Your task to perform on an android device: open a bookmark in the chrome app Image 0: 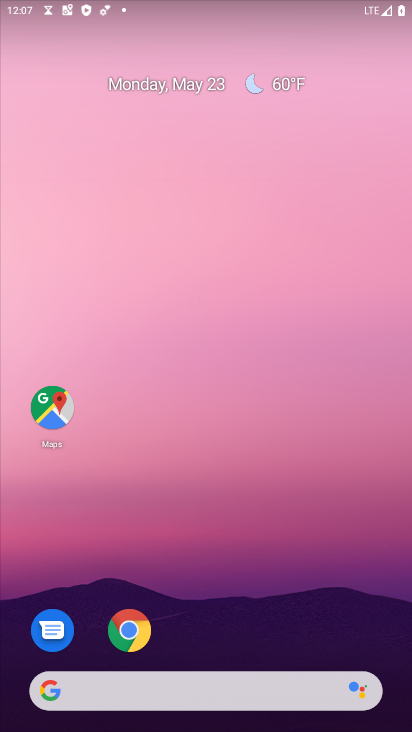
Step 0: click (127, 630)
Your task to perform on an android device: open a bookmark in the chrome app Image 1: 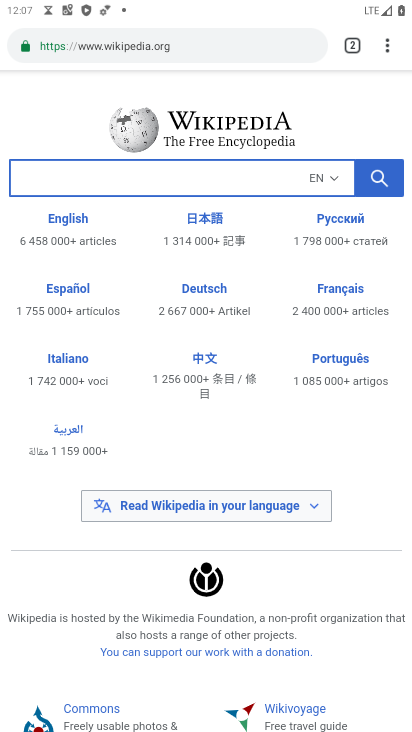
Step 1: click (388, 44)
Your task to perform on an android device: open a bookmark in the chrome app Image 2: 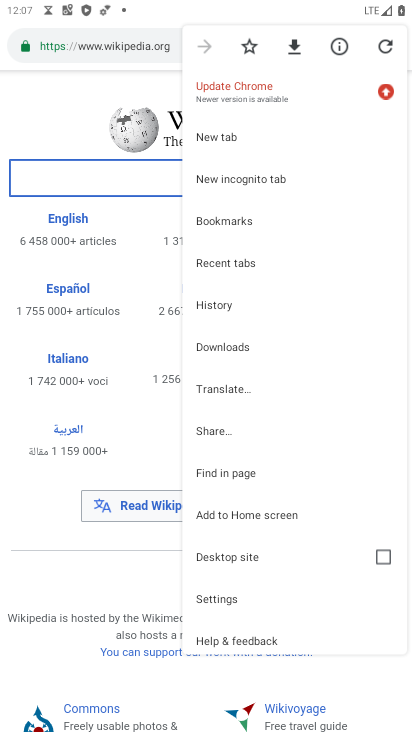
Step 2: click (247, 219)
Your task to perform on an android device: open a bookmark in the chrome app Image 3: 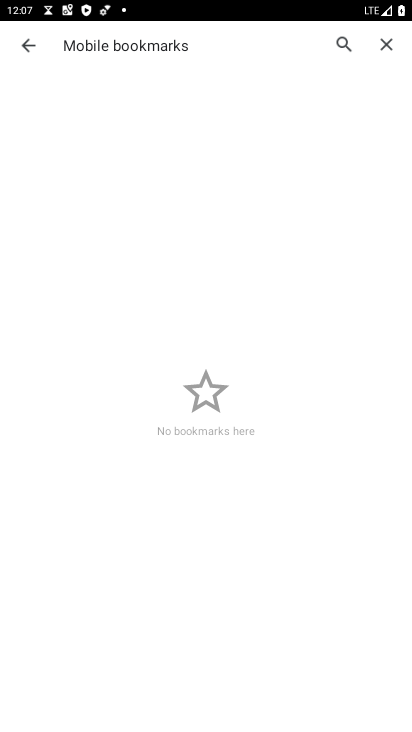
Step 3: task complete